Your task to perform on an android device: snooze an email in the gmail app Image 0: 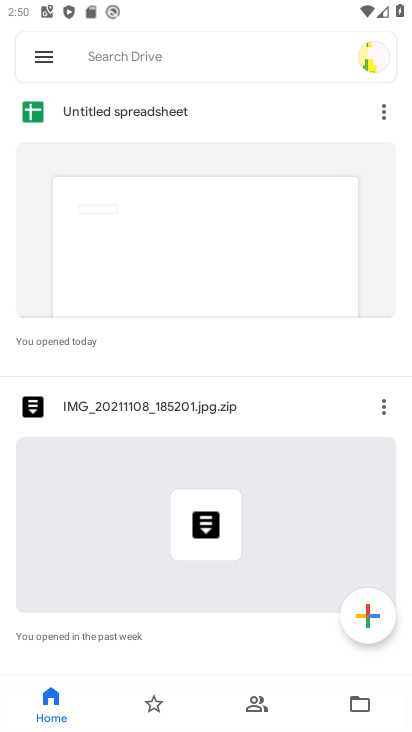
Step 0: press home button
Your task to perform on an android device: snooze an email in the gmail app Image 1: 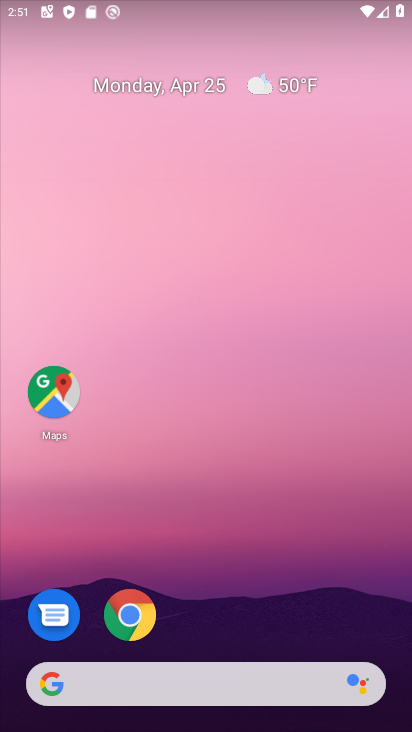
Step 1: drag from (196, 683) to (198, 172)
Your task to perform on an android device: snooze an email in the gmail app Image 2: 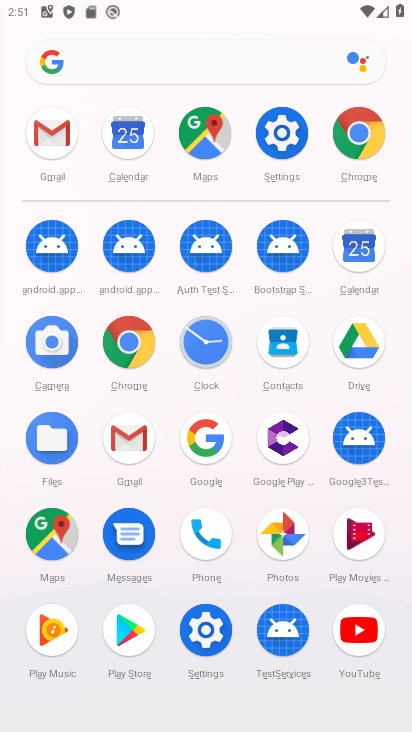
Step 2: click (130, 431)
Your task to perform on an android device: snooze an email in the gmail app Image 3: 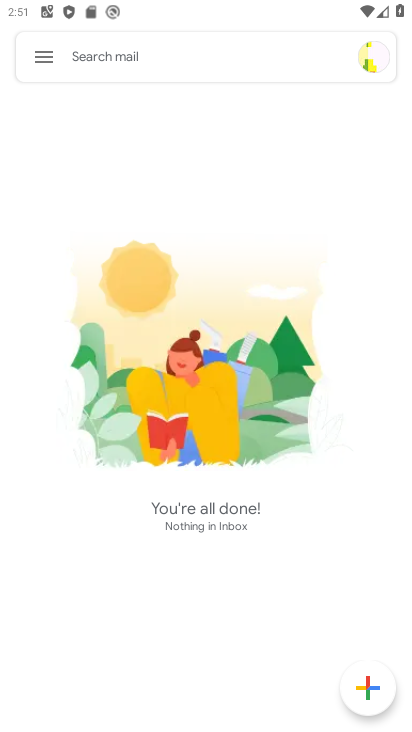
Step 3: click (43, 55)
Your task to perform on an android device: snooze an email in the gmail app Image 4: 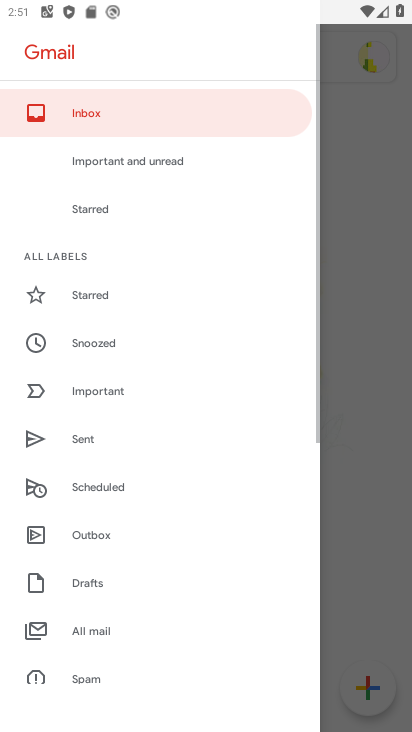
Step 4: click (88, 108)
Your task to perform on an android device: snooze an email in the gmail app Image 5: 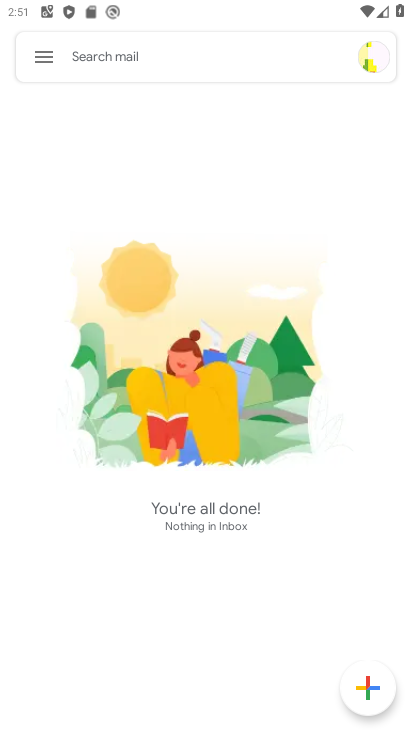
Step 5: task complete